Your task to perform on an android device: change text size in settings app Image 0: 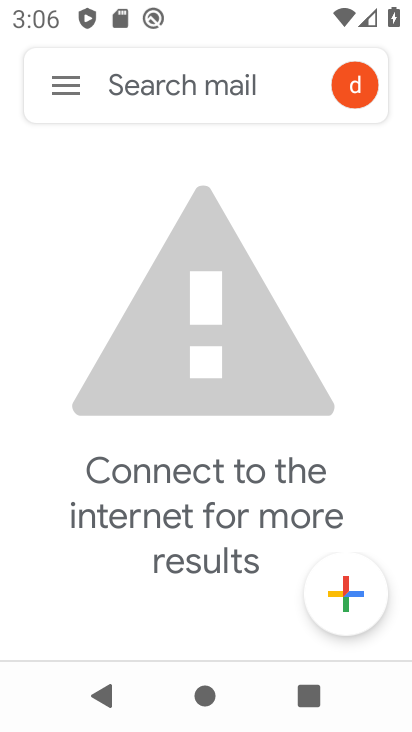
Step 0: press home button
Your task to perform on an android device: change text size in settings app Image 1: 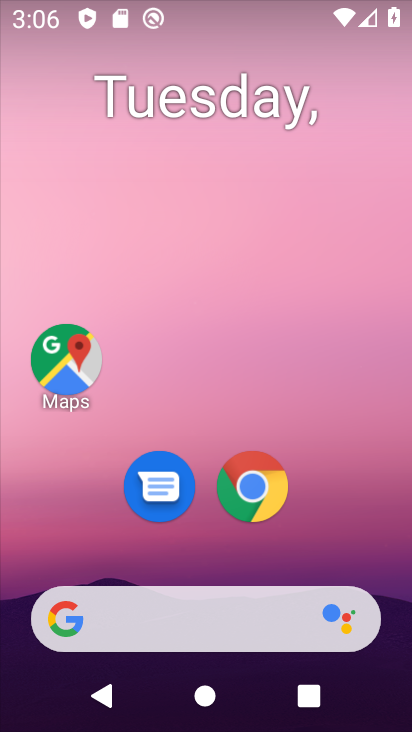
Step 1: drag from (209, 536) to (228, 11)
Your task to perform on an android device: change text size in settings app Image 2: 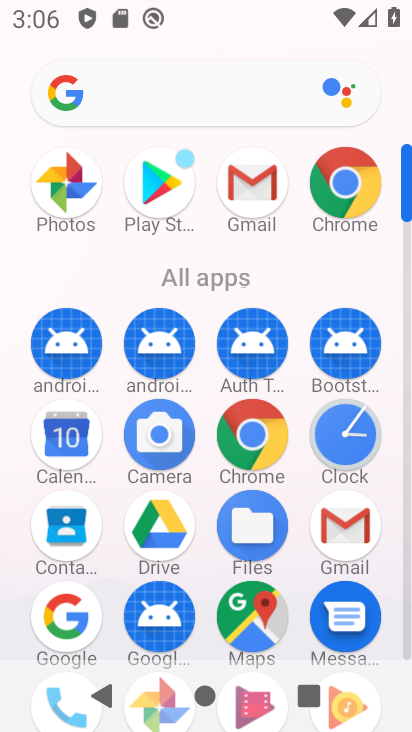
Step 2: drag from (202, 564) to (237, 107)
Your task to perform on an android device: change text size in settings app Image 3: 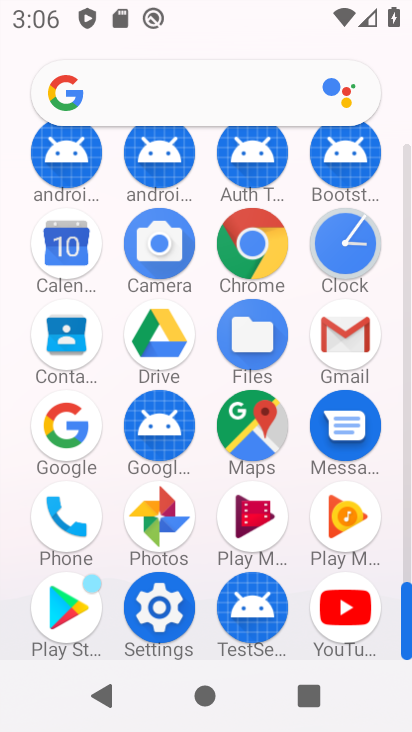
Step 3: click (151, 606)
Your task to perform on an android device: change text size in settings app Image 4: 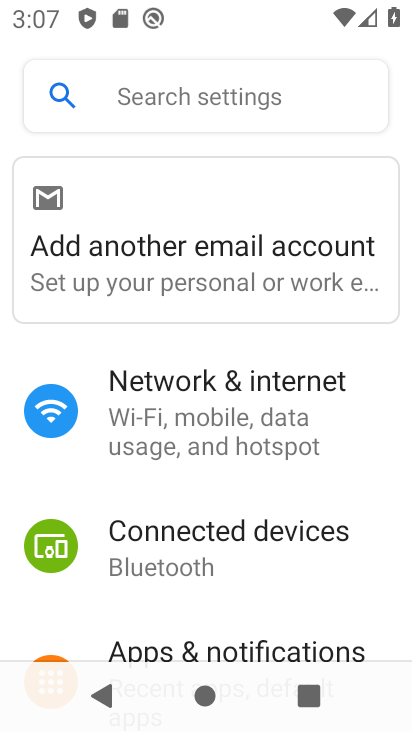
Step 4: drag from (217, 610) to (240, 72)
Your task to perform on an android device: change text size in settings app Image 5: 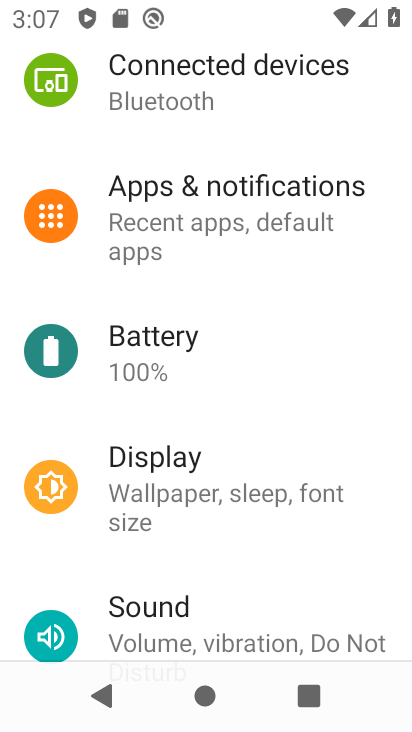
Step 5: click (188, 497)
Your task to perform on an android device: change text size in settings app Image 6: 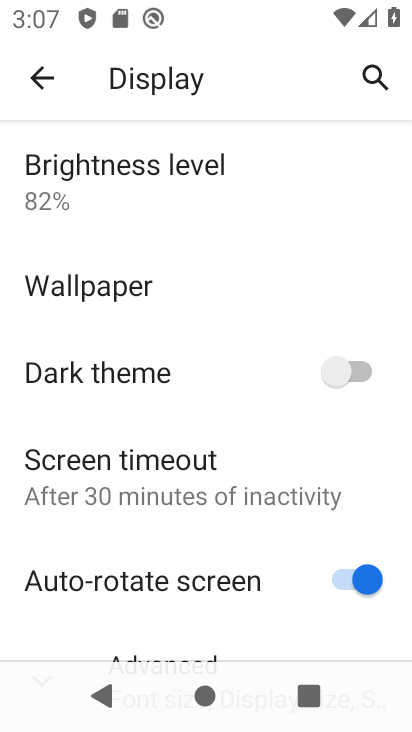
Step 6: drag from (158, 554) to (164, 185)
Your task to perform on an android device: change text size in settings app Image 7: 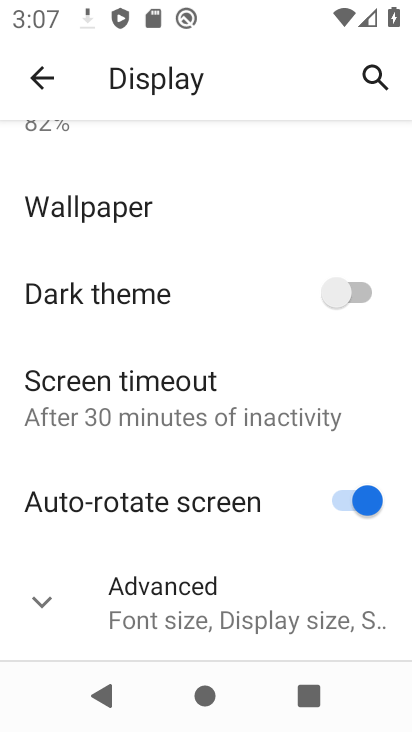
Step 7: click (71, 602)
Your task to perform on an android device: change text size in settings app Image 8: 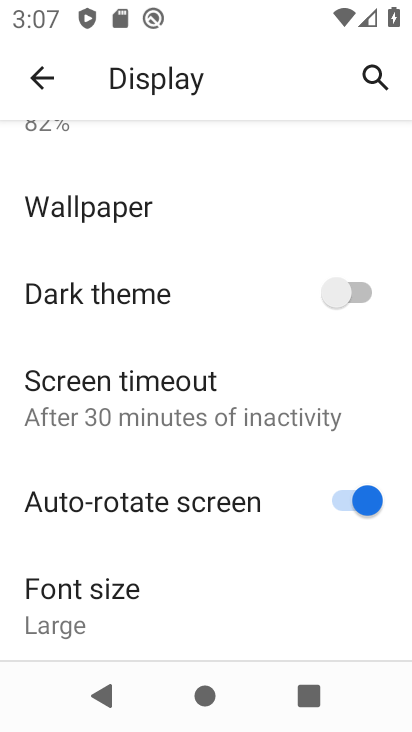
Step 8: click (74, 608)
Your task to perform on an android device: change text size in settings app Image 9: 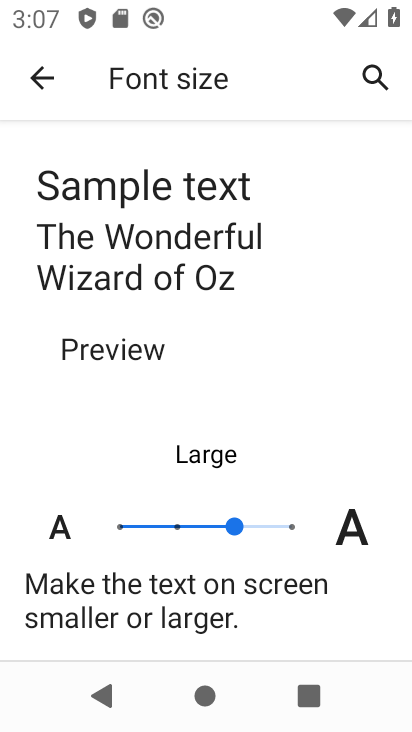
Step 9: click (121, 526)
Your task to perform on an android device: change text size in settings app Image 10: 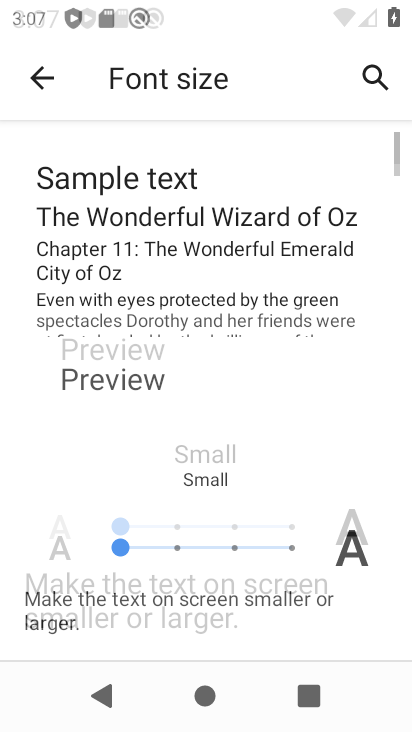
Step 10: task complete